Your task to perform on an android device: What's the weather going to be tomorrow? Image 0: 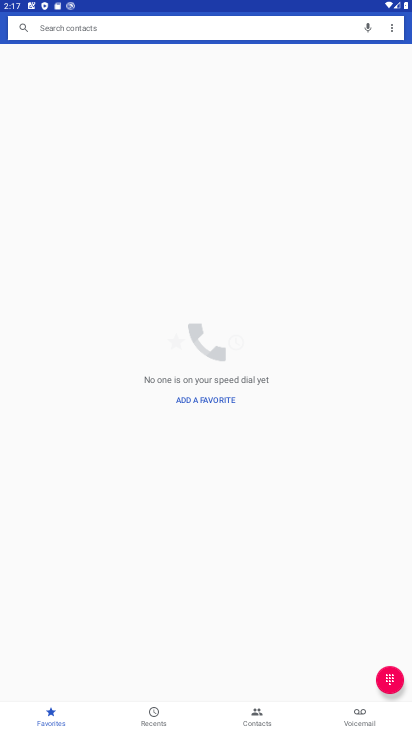
Step 0: press home button
Your task to perform on an android device: What's the weather going to be tomorrow? Image 1: 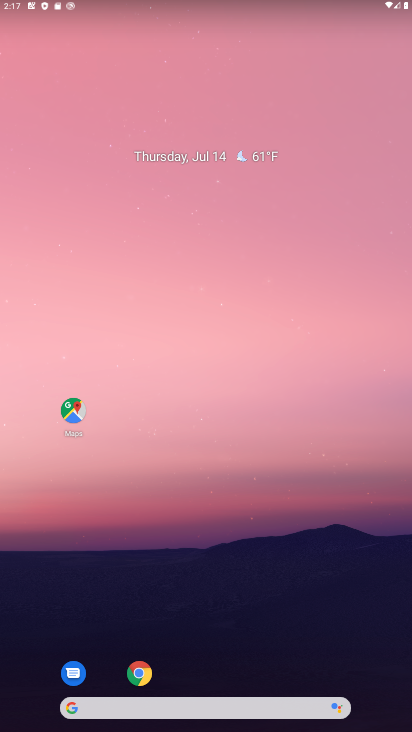
Step 1: click (269, 160)
Your task to perform on an android device: What's the weather going to be tomorrow? Image 2: 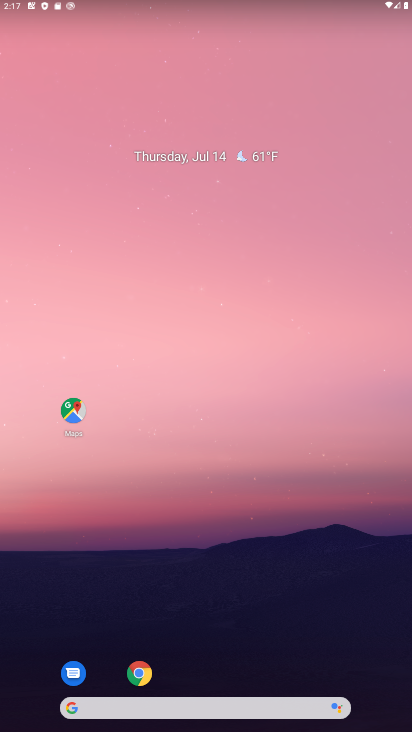
Step 2: click (203, 703)
Your task to perform on an android device: What's the weather going to be tomorrow? Image 3: 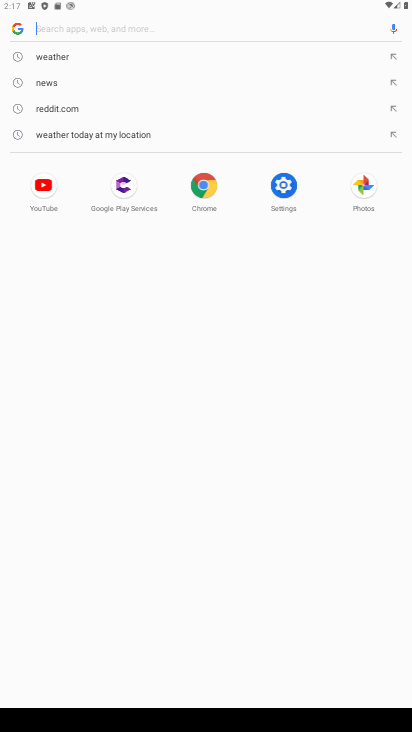
Step 3: click (61, 51)
Your task to perform on an android device: What's the weather going to be tomorrow? Image 4: 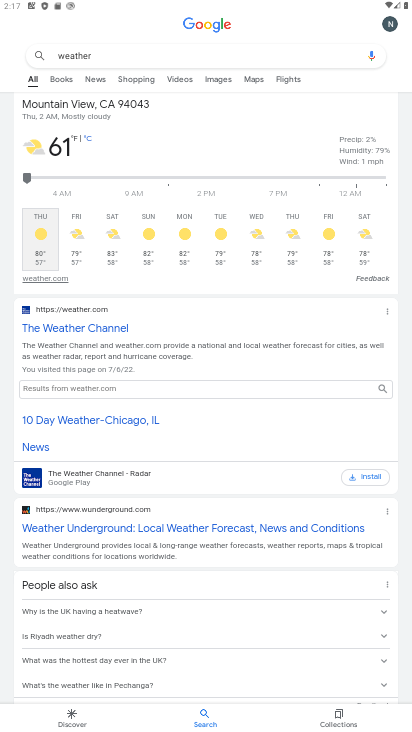
Step 4: task complete